Your task to perform on an android device: star an email in the gmail app Image 0: 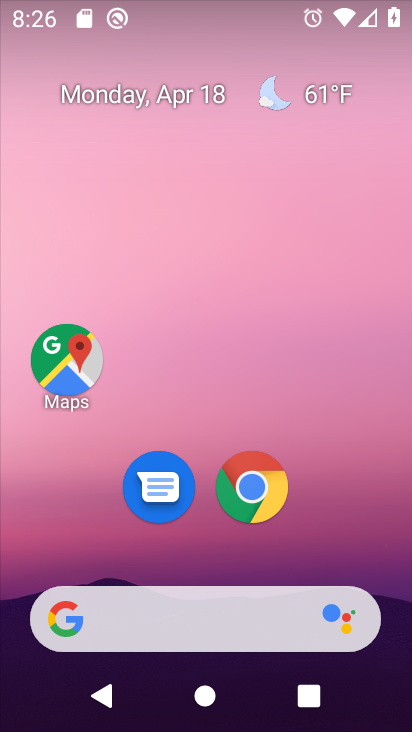
Step 0: press home button
Your task to perform on an android device: star an email in the gmail app Image 1: 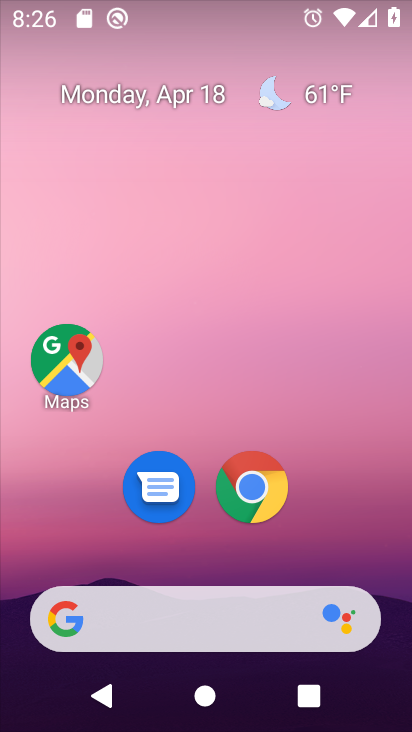
Step 1: drag from (199, 556) to (201, 71)
Your task to perform on an android device: star an email in the gmail app Image 2: 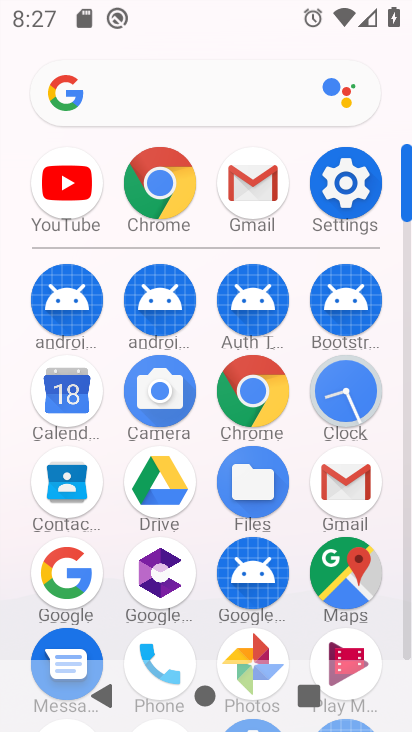
Step 2: click (341, 473)
Your task to perform on an android device: star an email in the gmail app Image 3: 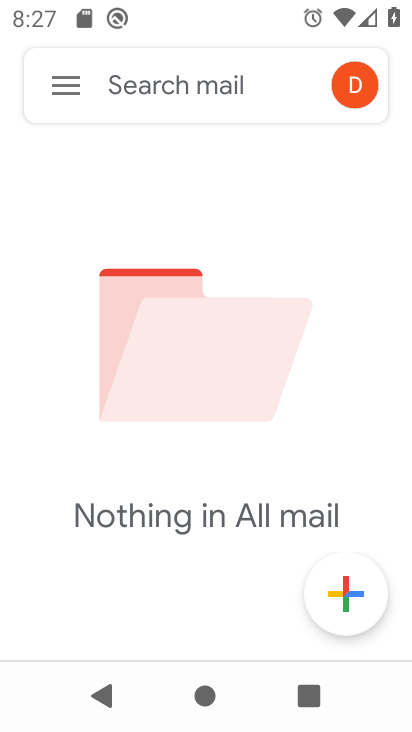
Step 3: task complete